Your task to perform on an android device: toggle show notifications on the lock screen Image 0: 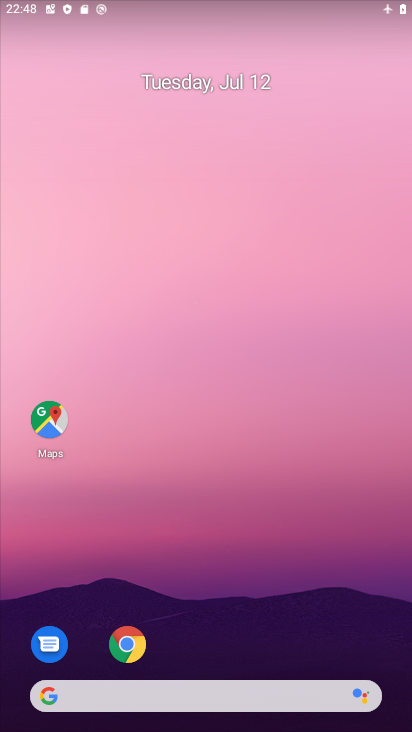
Step 0: drag from (169, 731) to (360, 5)
Your task to perform on an android device: toggle show notifications on the lock screen Image 1: 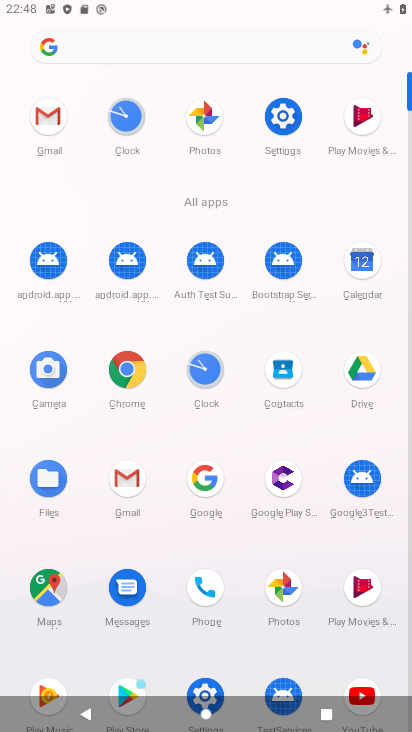
Step 1: click (292, 105)
Your task to perform on an android device: toggle show notifications on the lock screen Image 2: 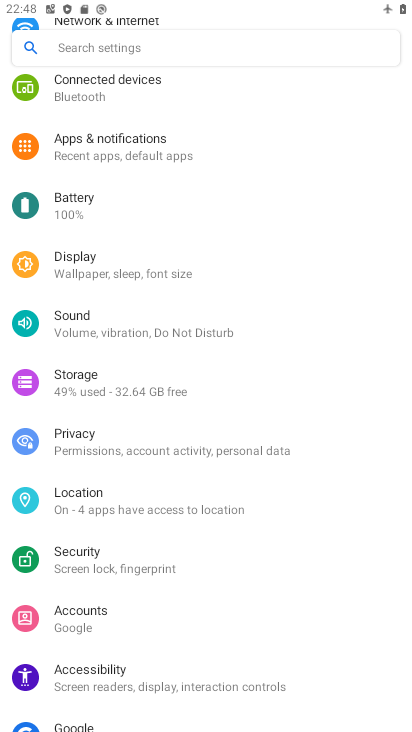
Step 2: click (181, 159)
Your task to perform on an android device: toggle show notifications on the lock screen Image 3: 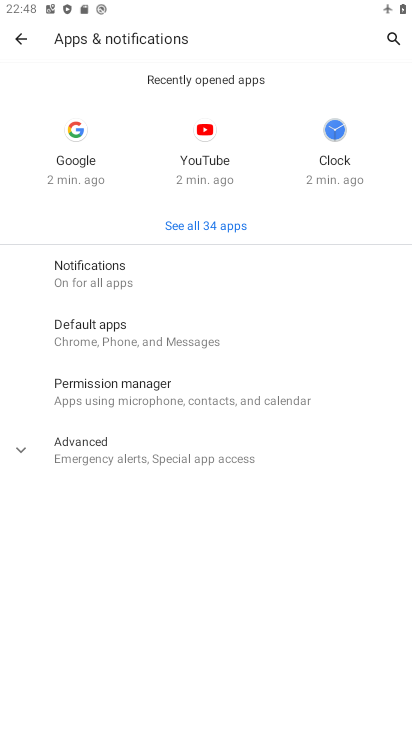
Step 3: click (131, 272)
Your task to perform on an android device: toggle show notifications on the lock screen Image 4: 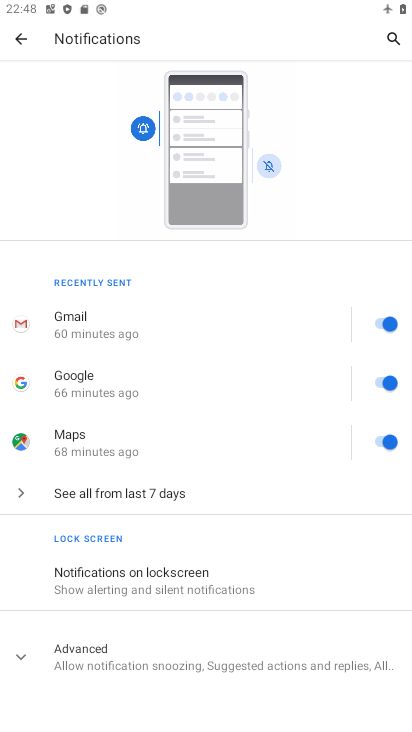
Step 4: click (183, 579)
Your task to perform on an android device: toggle show notifications on the lock screen Image 5: 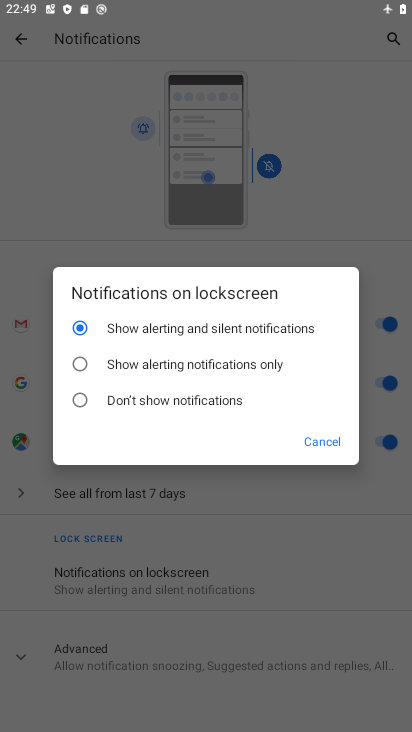
Step 5: task complete